Your task to perform on an android device: Open calendar and show me the third week of next month Image 0: 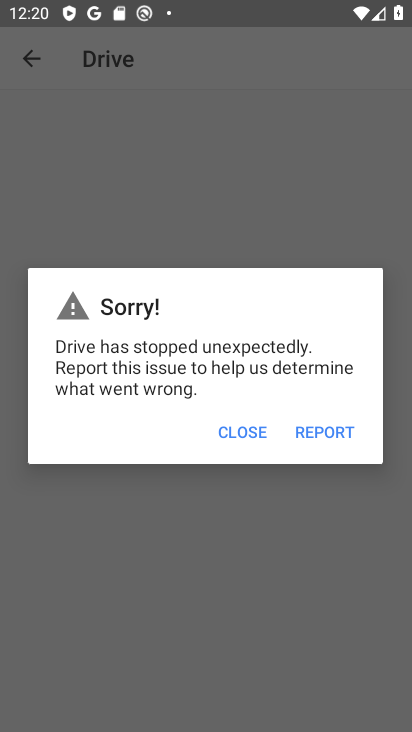
Step 0: click (246, 439)
Your task to perform on an android device: Open calendar and show me the third week of next month Image 1: 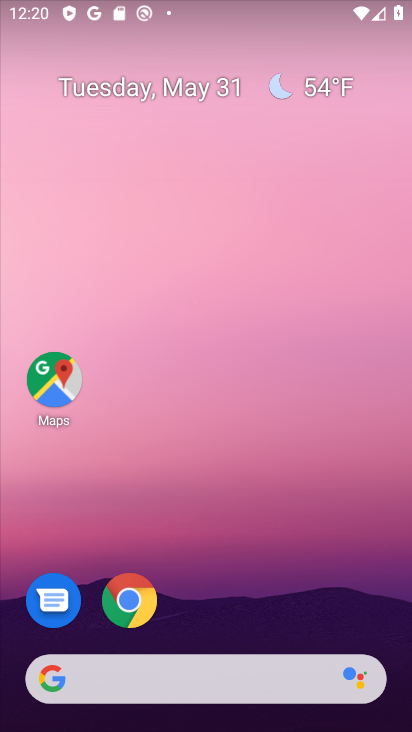
Step 1: drag from (217, 640) to (216, 111)
Your task to perform on an android device: Open calendar and show me the third week of next month Image 2: 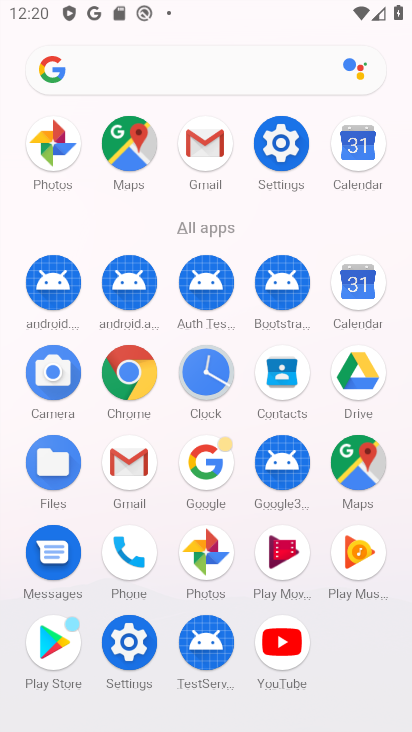
Step 2: click (359, 285)
Your task to perform on an android device: Open calendar and show me the third week of next month Image 3: 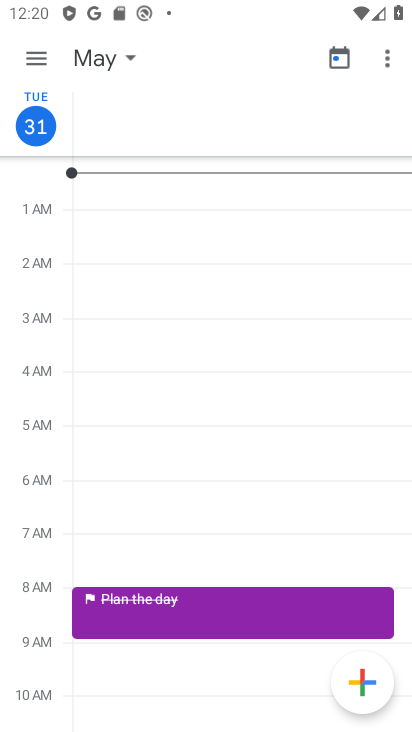
Step 3: click (34, 64)
Your task to perform on an android device: Open calendar and show me the third week of next month Image 4: 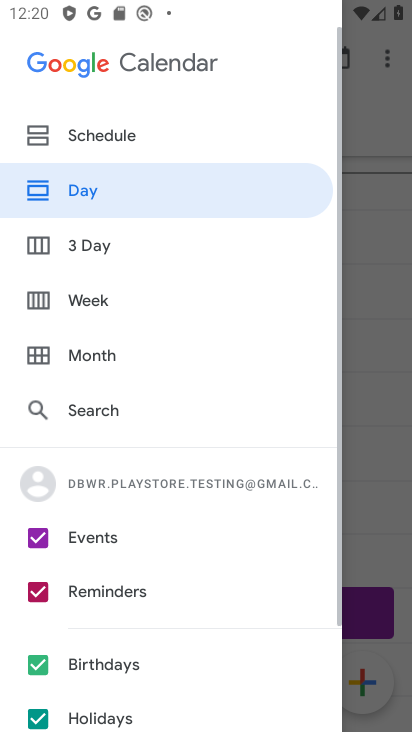
Step 4: click (71, 285)
Your task to perform on an android device: Open calendar and show me the third week of next month Image 5: 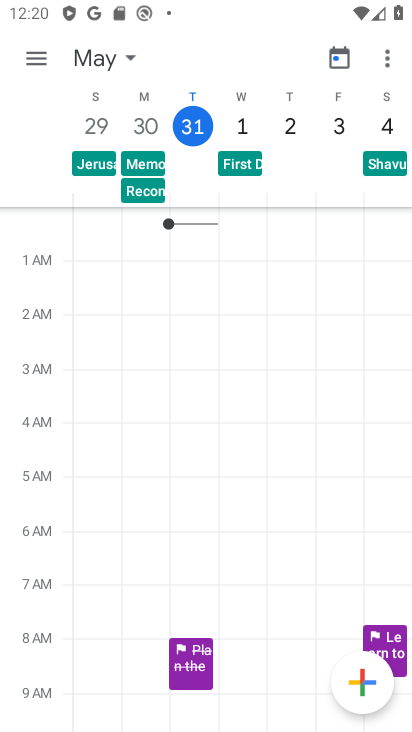
Step 5: task complete